Your task to perform on an android device: Show me popular games on the Play Store Image 0: 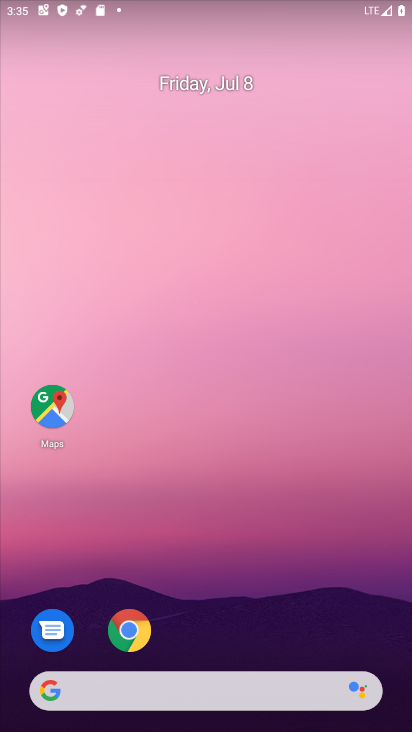
Step 0: drag from (210, 637) to (196, 138)
Your task to perform on an android device: Show me popular games on the Play Store Image 1: 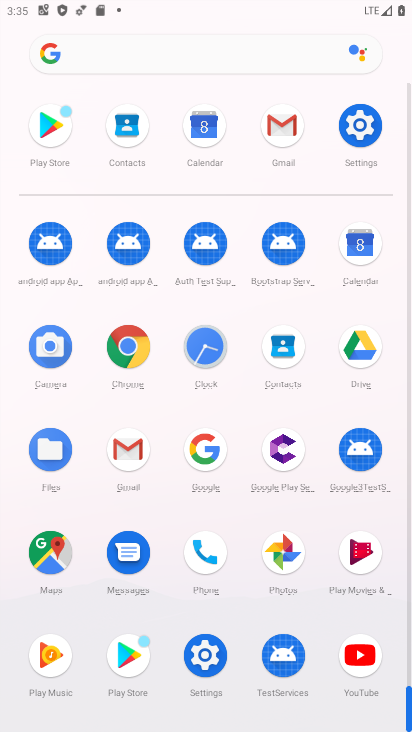
Step 1: click (55, 128)
Your task to perform on an android device: Show me popular games on the Play Store Image 2: 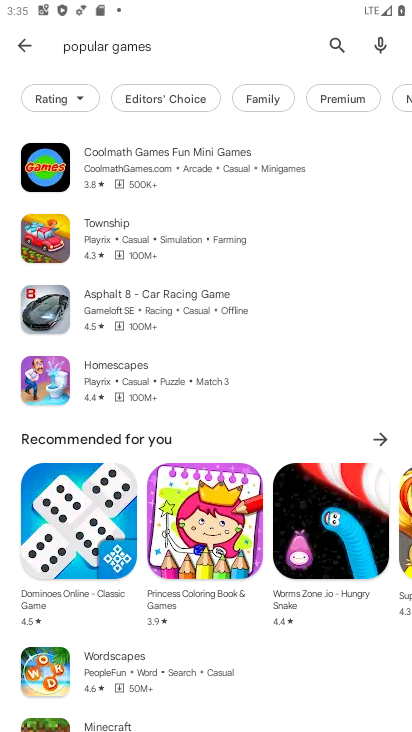
Step 2: task complete